Your task to perform on an android device: toggle improve location accuracy Image 0: 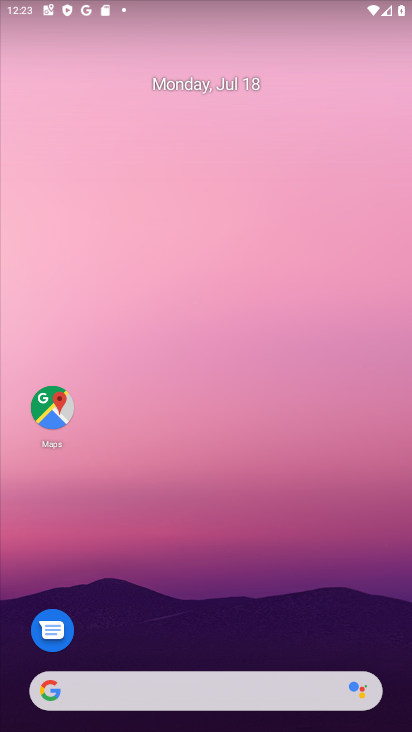
Step 0: drag from (304, 673) to (327, 23)
Your task to perform on an android device: toggle improve location accuracy Image 1: 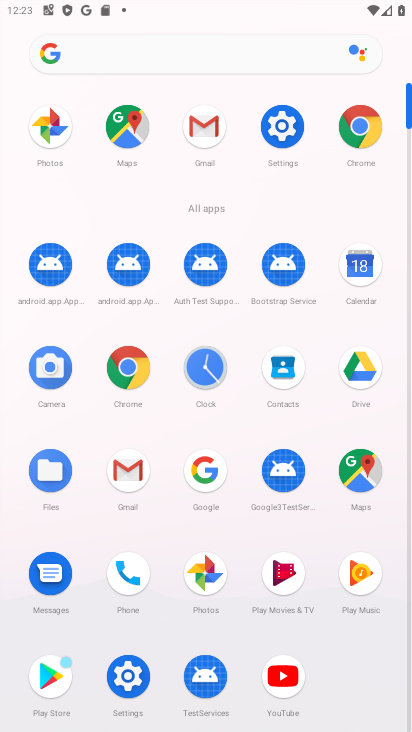
Step 1: click (280, 113)
Your task to perform on an android device: toggle improve location accuracy Image 2: 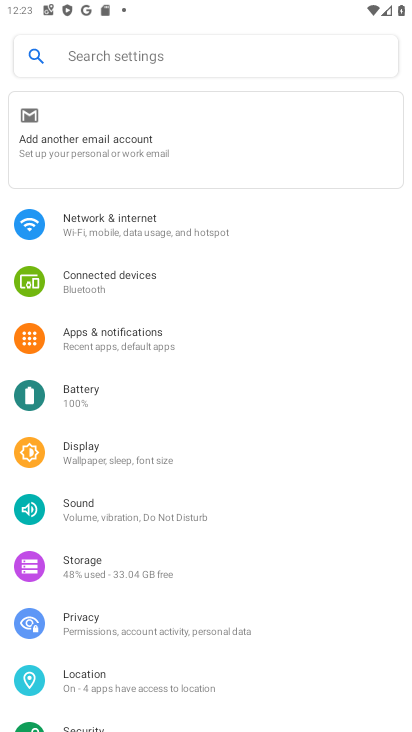
Step 2: click (133, 686)
Your task to perform on an android device: toggle improve location accuracy Image 3: 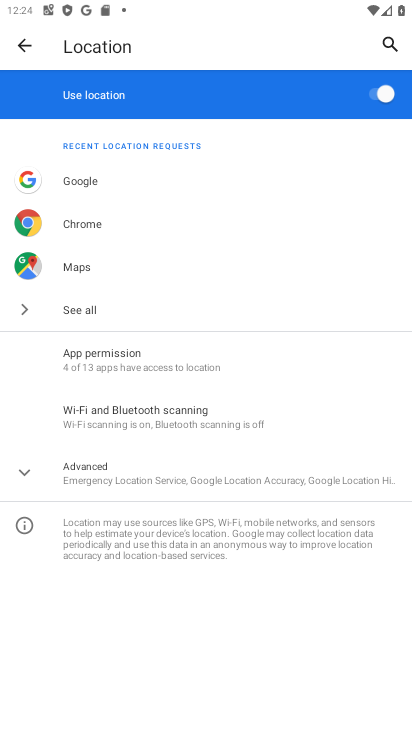
Step 3: click (175, 479)
Your task to perform on an android device: toggle improve location accuracy Image 4: 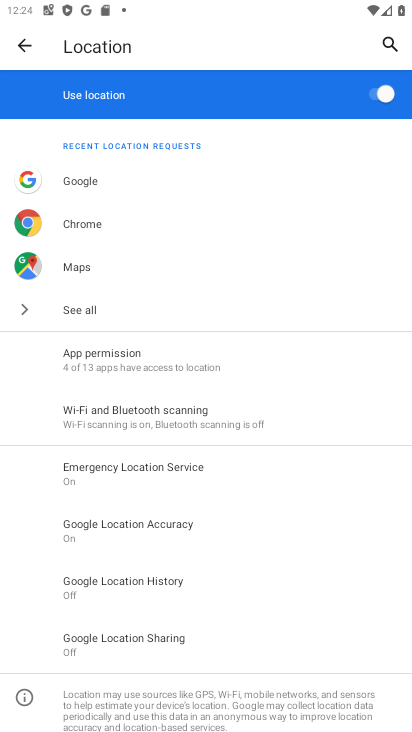
Step 4: click (147, 526)
Your task to perform on an android device: toggle improve location accuracy Image 5: 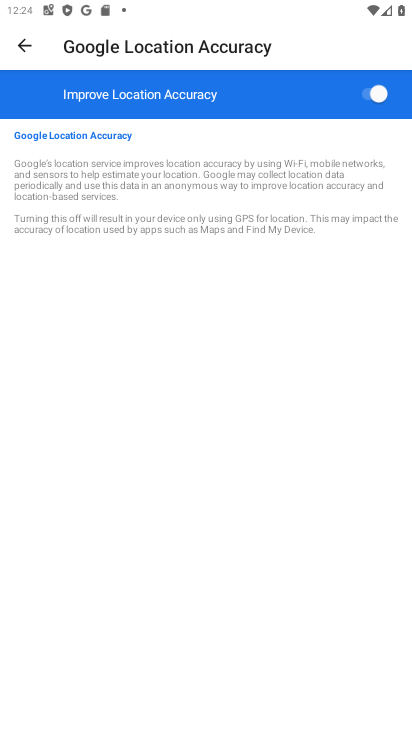
Step 5: click (383, 94)
Your task to perform on an android device: toggle improve location accuracy Image 6: 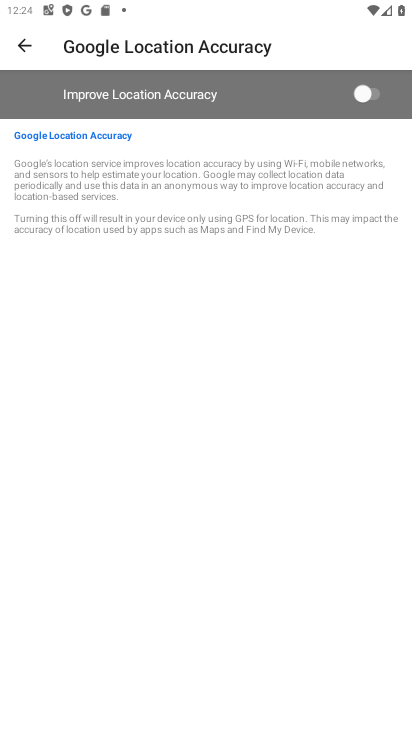
Step 6: task complete